Your task to perform on an android device: Search for sushi restaurants on Maps Image 0: 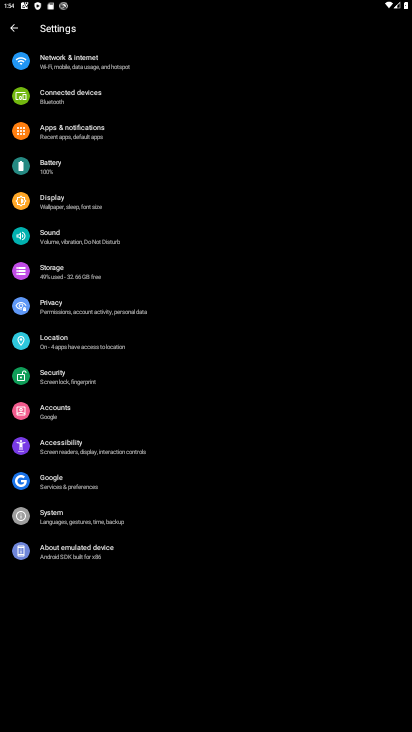
Step 0: press home button
Your task to perform on an android device: Search for sushi restaurants on Maps Image 1: 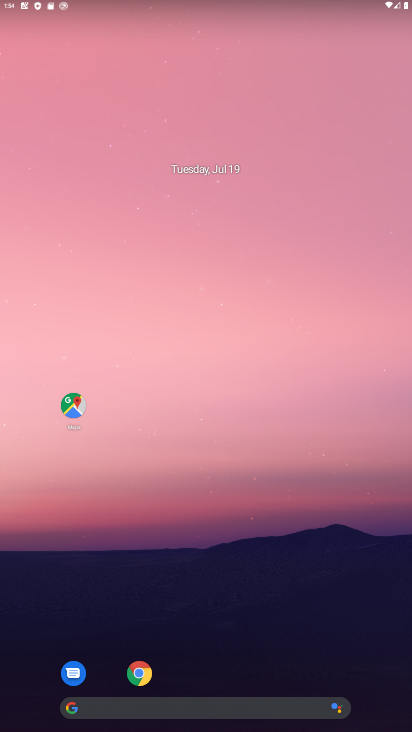
Step 1: click (70, 406)
Your task to perform on an android device: Search for sushi restaurants on Maps Image 2: 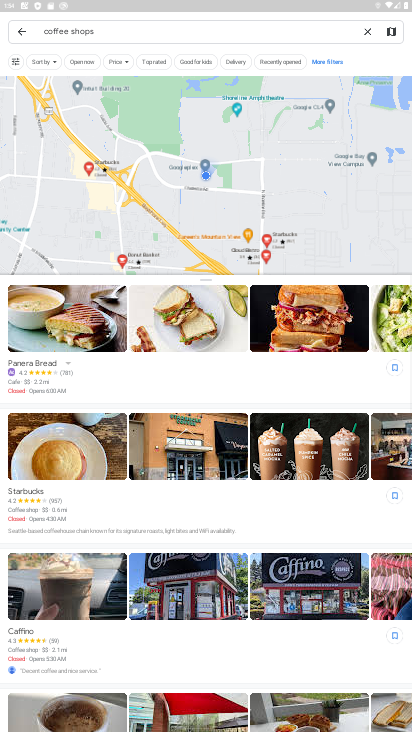
Step 2: click (372, 31)
Your task to perform on an android device: Search for sushi restaurants on Maps Image 3: 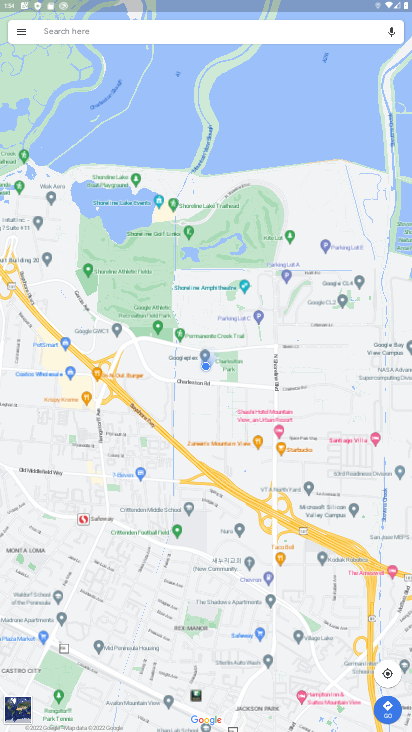
Step 3: click (263, 33)
Your task to perform on an android device: Search for sushi restaurants on Maps Image 4: 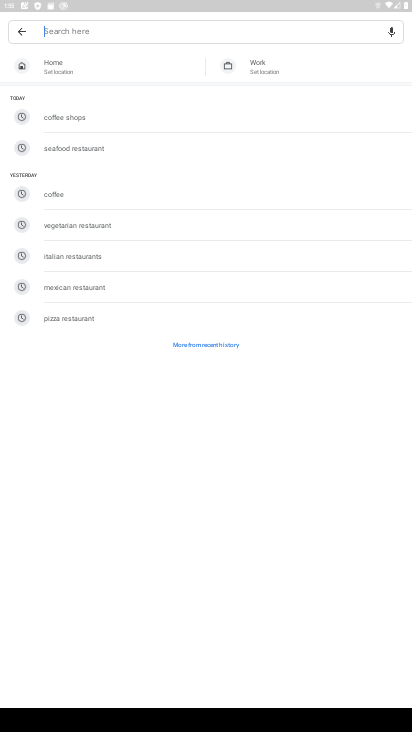
Step 4: type "sushi restaurants"
Your task to perform on an android device: Search for sushi restaurants on Maps Image 5: 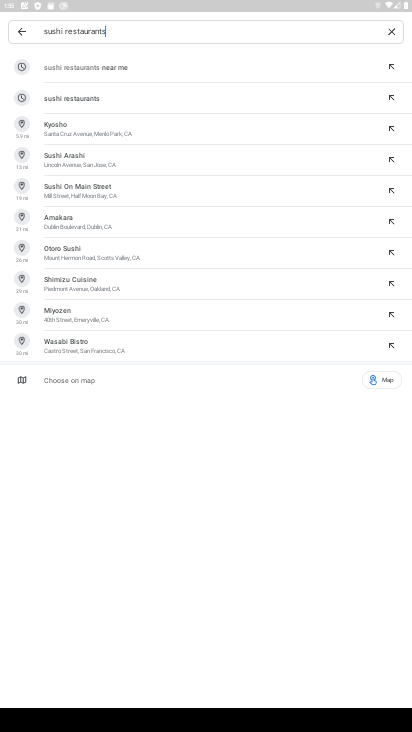
Step 5: click (94, 101)
Your task to perform on an android device: Search for sushi restaurants on Maps Image 6: 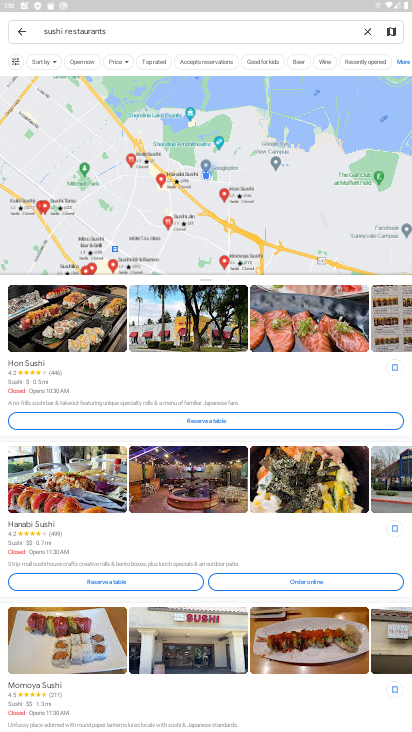
Step 6: task complete